Your task to perform on an android device: open a bookmark in the chrome app Image 0: 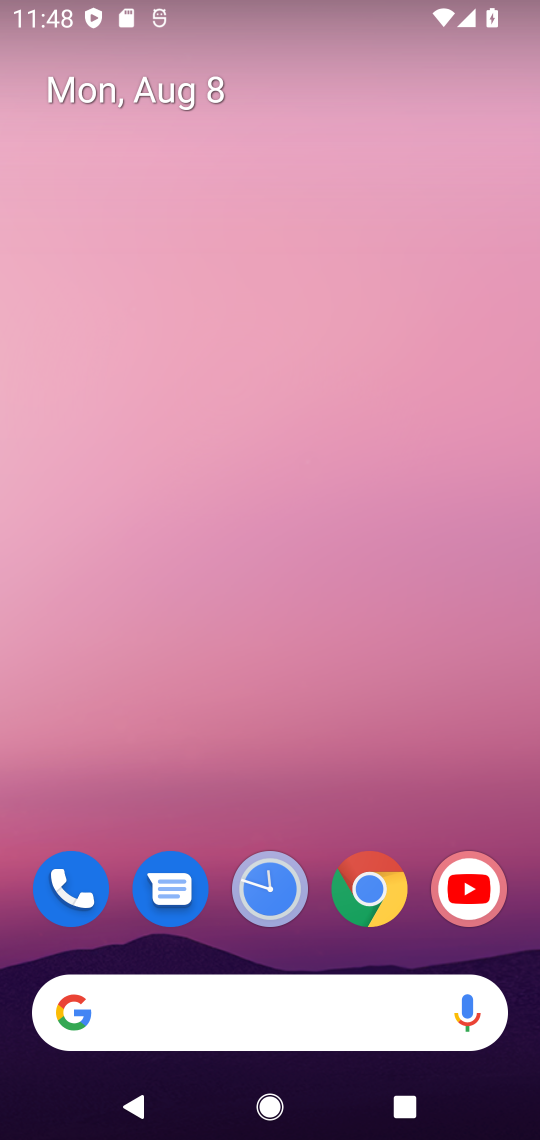
Step 0: press home button
Your task to perform on an android device: open a bookmark in the chrome app Image 1: 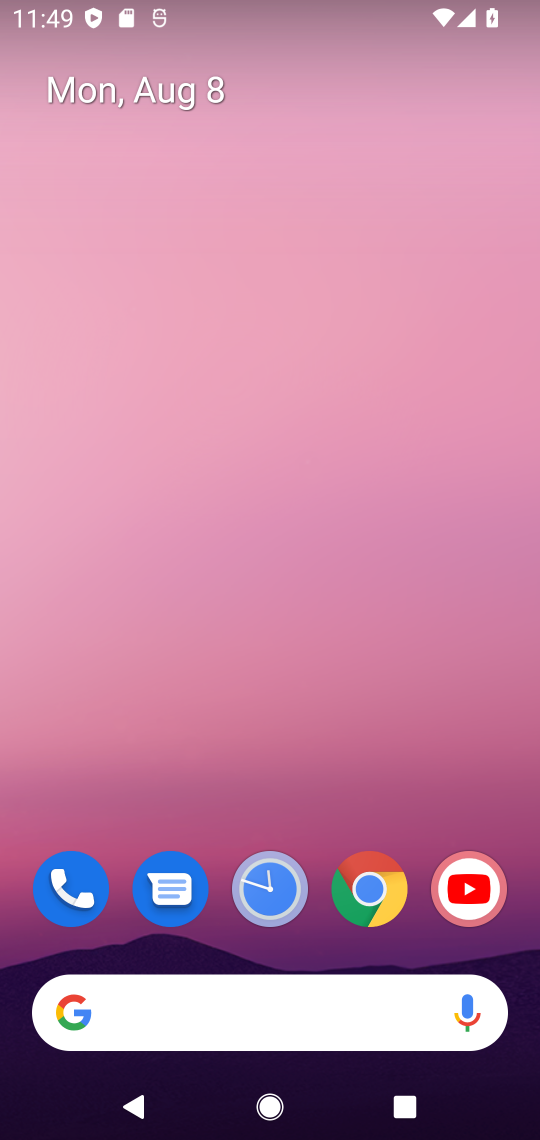
Step 1: click (389, 898)
Your task to perform on an android device: open a bookmark in the chrome app Image 2: 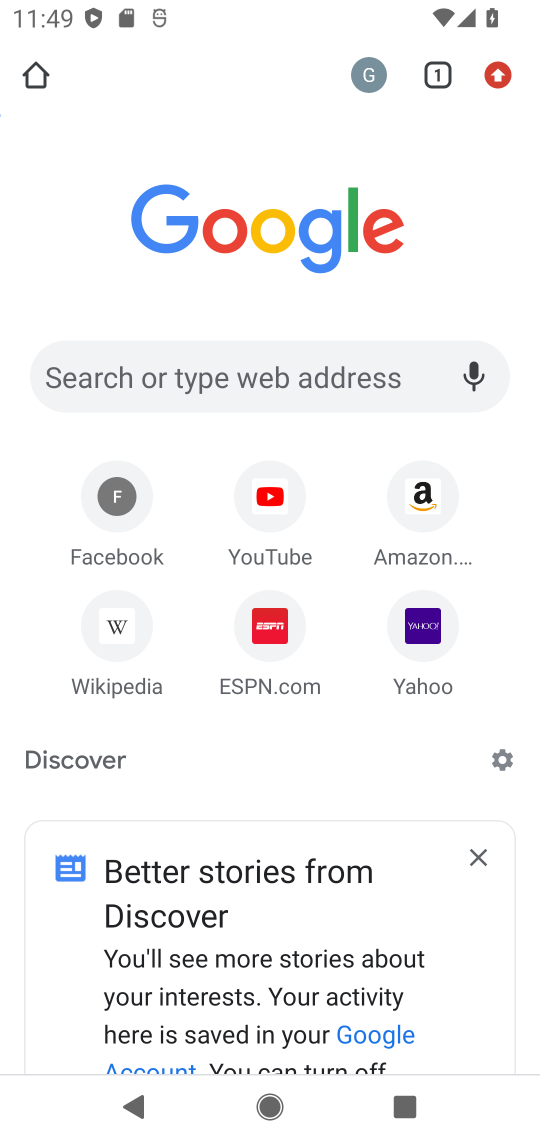
Step 2: click (497, 75)
Your task to perform on an android device: open a bookmark in the chrome app Image 3: 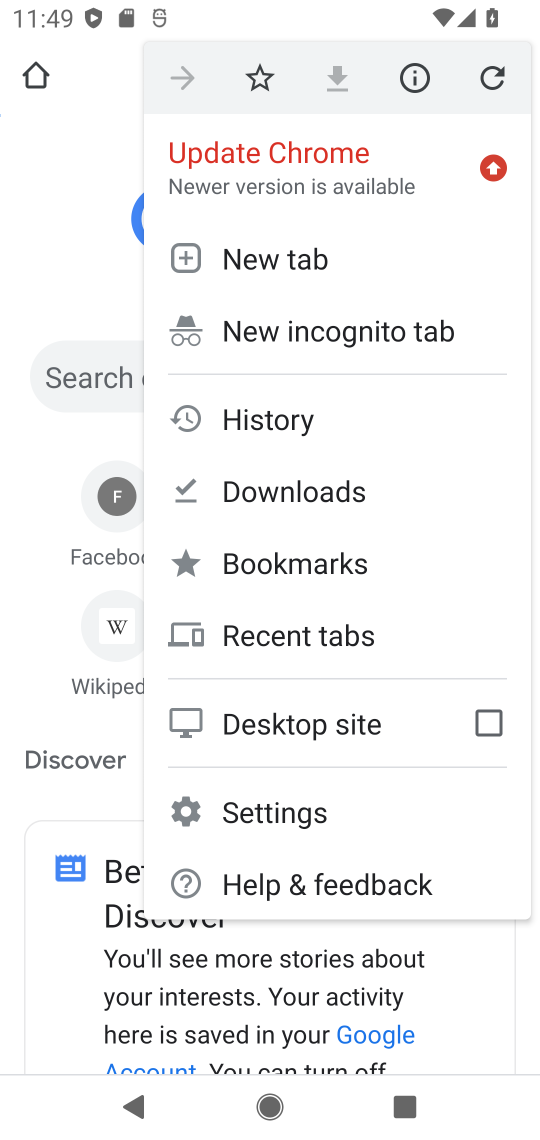
Step 3: click (292, 562)
Your task to perform on an android device: open a bookmark in the chrome app Image 4: 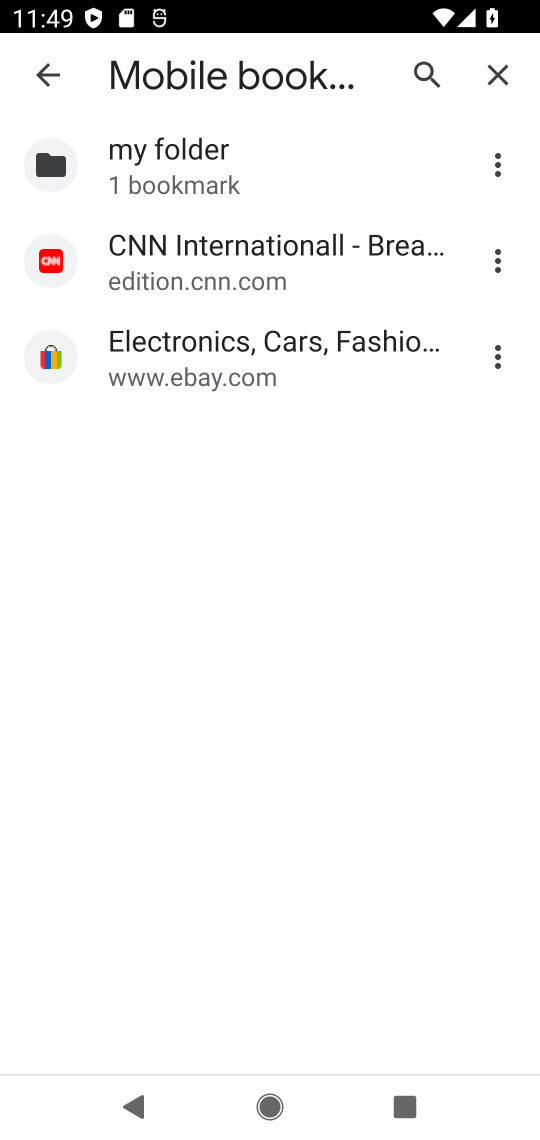
Step 4: click (172, 355)
Your task to perform on an android device: open a bookmark in the chrome app Image 5: 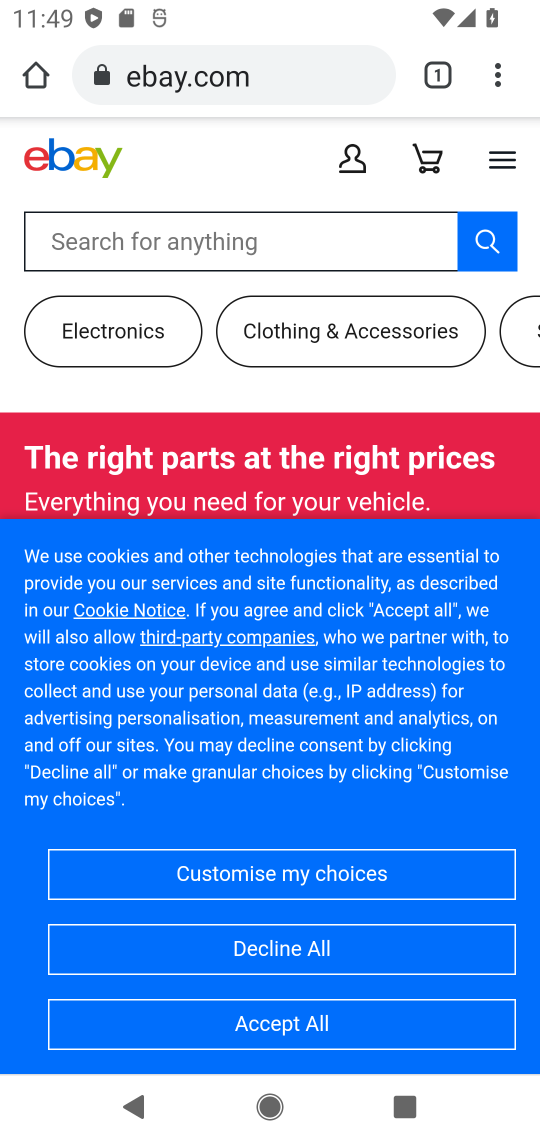
Step 5: task complete